Your task to perform on an android device: turn on airplane mode Image 0: 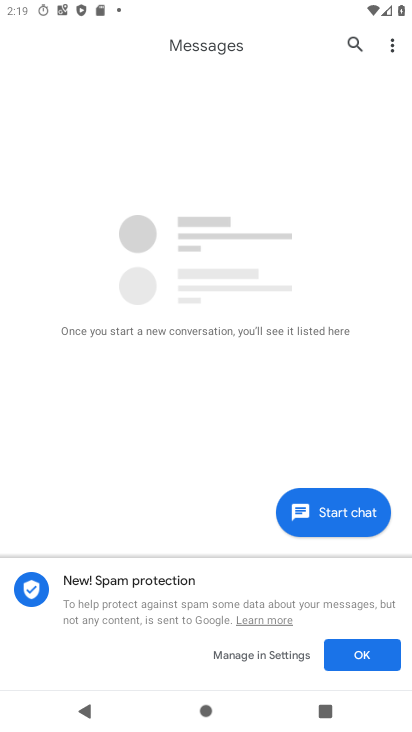
Step 0: press home button
Your task to perform on an android device: turn on airplane mode Image 1: 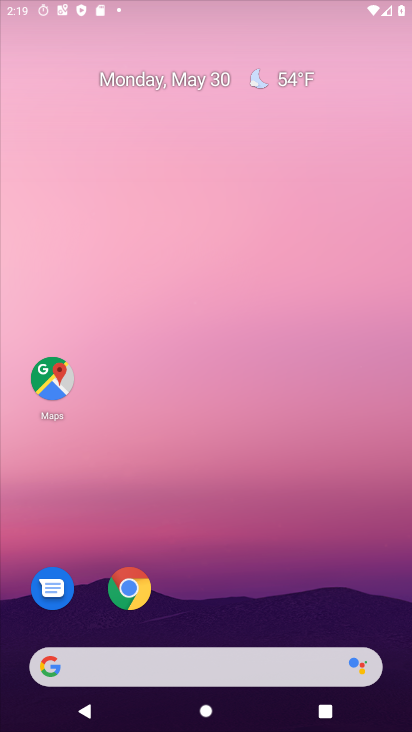
Step 1: drag from (220, 572) to (240, 48)
Your task to perform on an android device: turn on airplane mode Image 2: 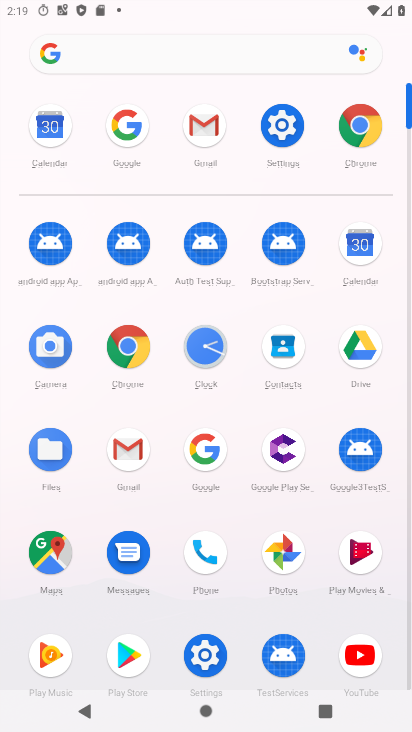
Step 2: click (287, 126)
Your task to perform on an android device: turn on airplane mode Image 3: 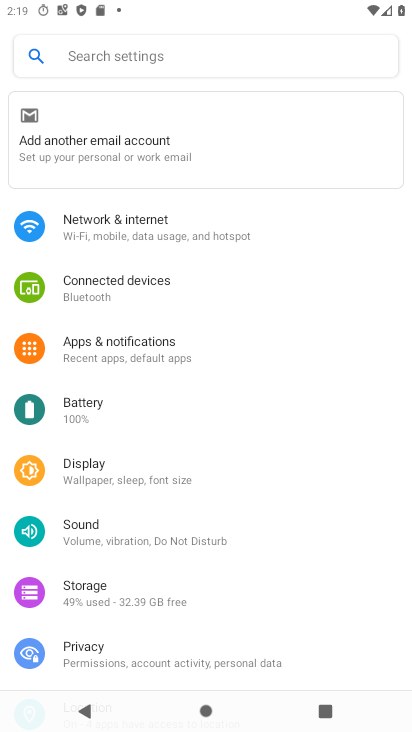
Step 3: click (167, 230)
Your task to perform on an android device: turn on airplane mode Image 4: 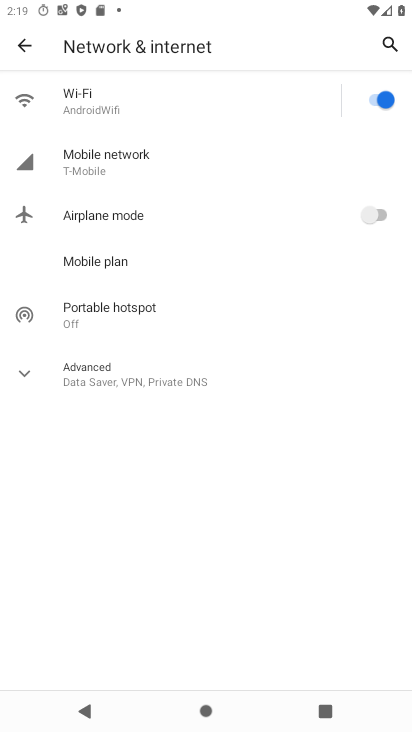
Step 4: click (384, 213)
Your task to perform on an android device: turn on airplane mode Image 5: 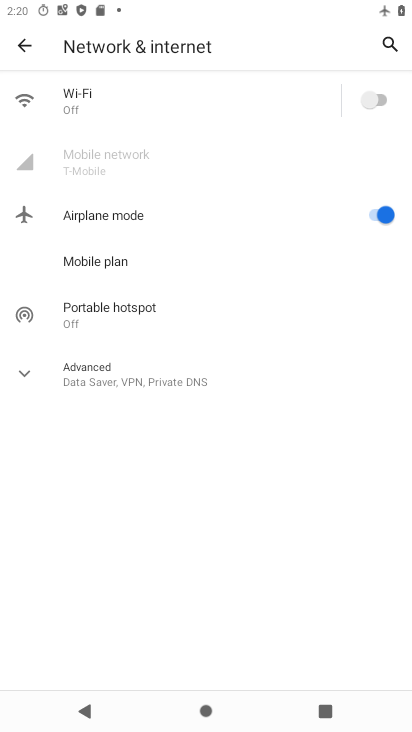
Step 5: task complete